Your task to perform on an android device: Show me the alarms in the clock app Image 0: 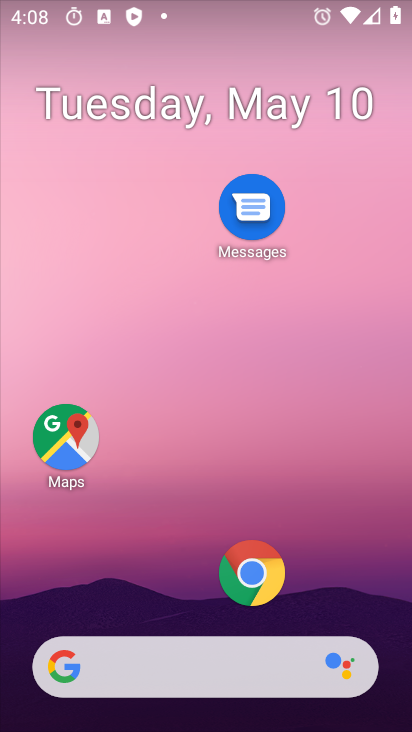
Step 0: drag from (193, 617) to (150, 207)
Your task to perform on an android device: Show me the alarms in the clock app Image 1: 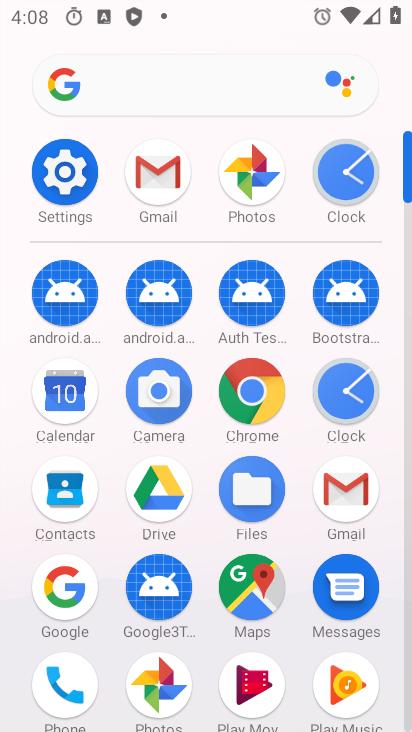
Step 1: click (353, 175)
Your task to perform on an android device: Show me the alarms in the clock app Image 2: 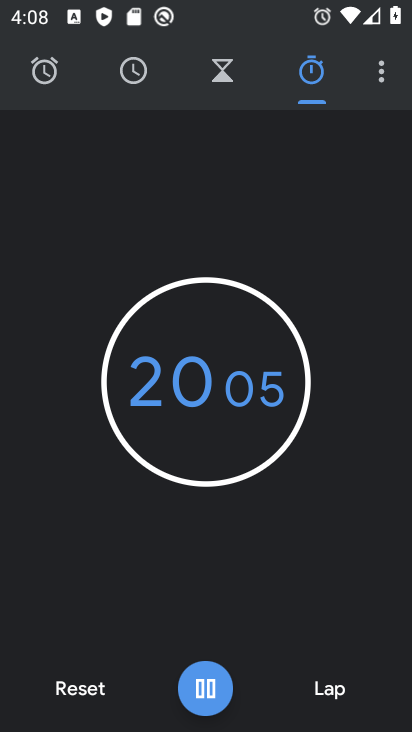
Step 2: click (38, 87)
Your task to perform on an android device: Show me the alarms in the clock app Image 3: 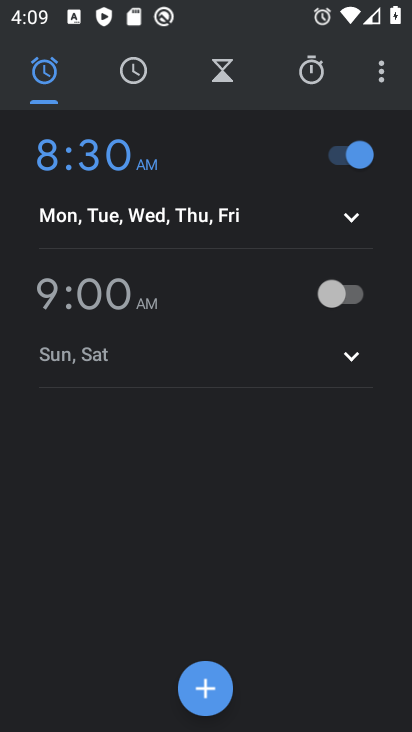
Step 3: task complete